Your task to perform on an android device: Go to Amazon Image 0: 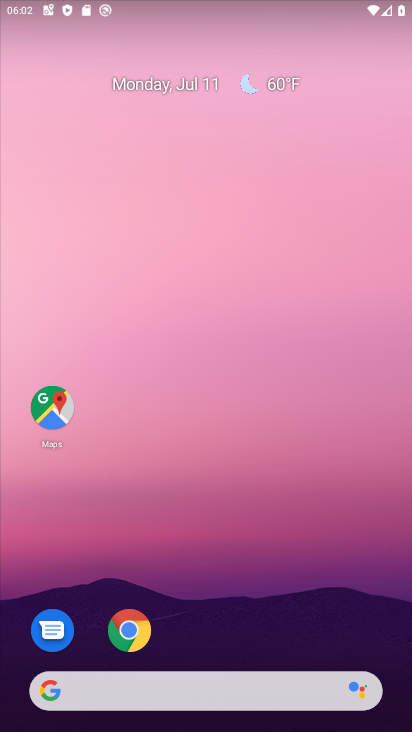
Step 0: click (132, 634)
Your task to perform on an android device: Go to Amazon Image 1: 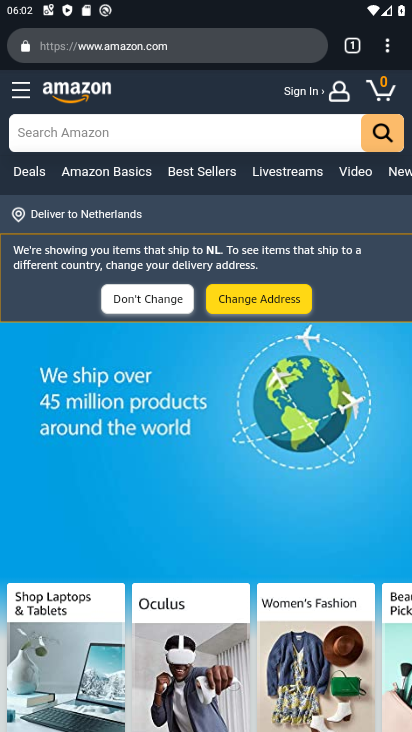
Step 1: task complete